Your task to perform on an android device: open chrome and create a bookmark for the current page Image 0: 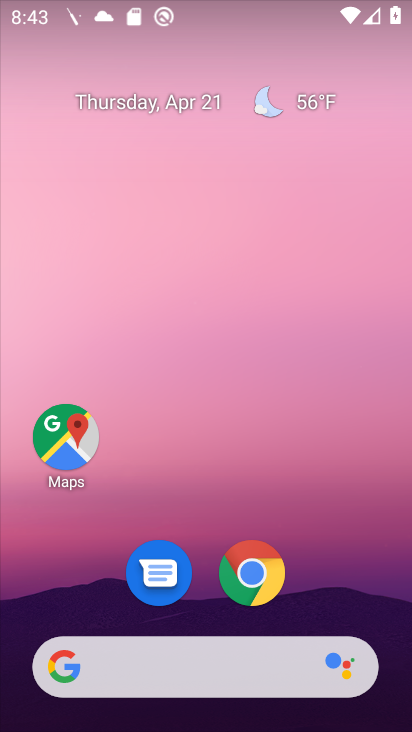
Step 0: click (251, 572)
Your task to perform on an android device: open chrome and create a bookmark for the current page Image 1: 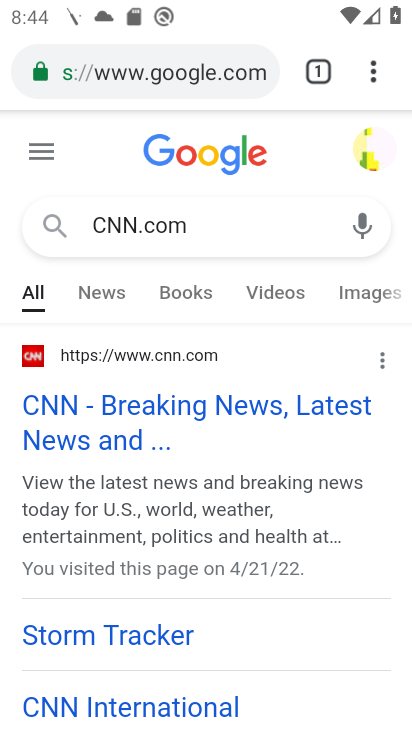
Step 1: click (387, 70)
Your task to perform on an android device: open chrome and create a bookmark for the current page Image 2: 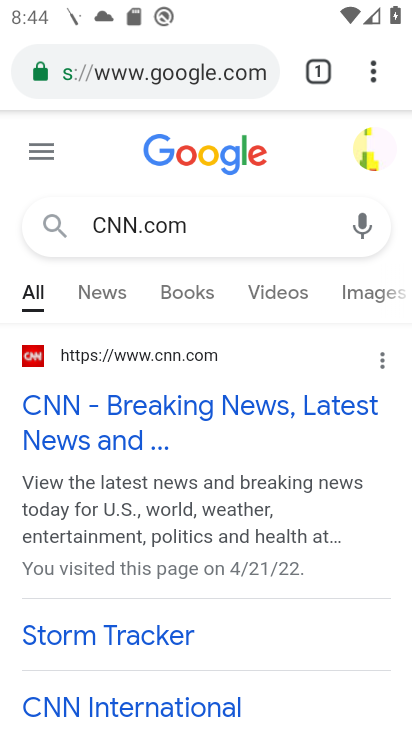
Step 2: click (374, 70)
Your task to perform on an android device: open chrome and create a bookmark for the current page Image 3: 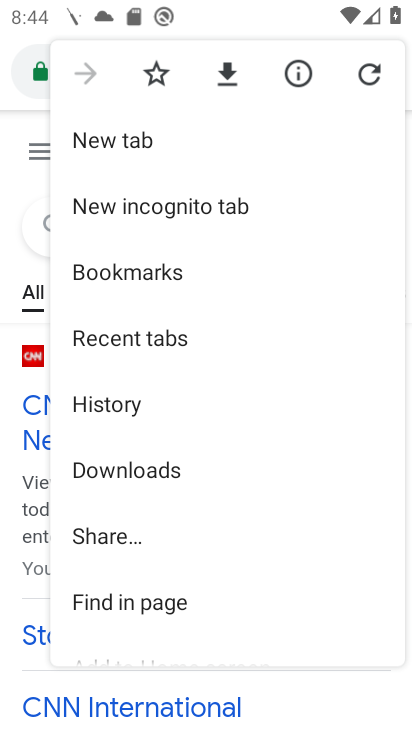
Step 3: click (156, 68)
Your task to perform on an android device: open chrome and create a bookmark for the current page Image 4: 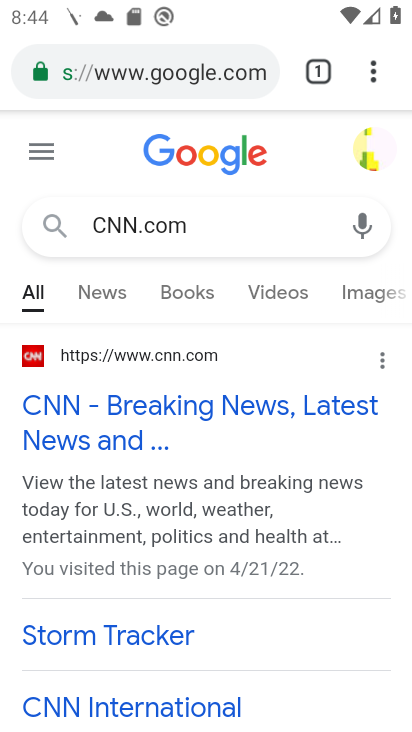
Step 4: task complete